Your task to perform on an android device: search for starred emails in the gmail app Image 0: 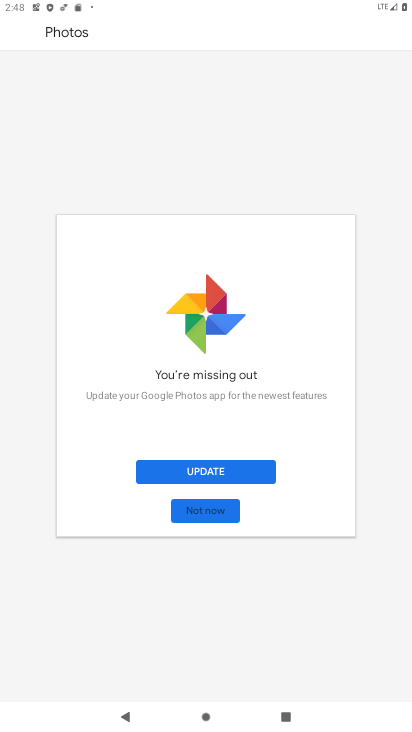
Step 0: press home button
Your task to perform on an android device: search for starred emails in the gmail app Image 1: 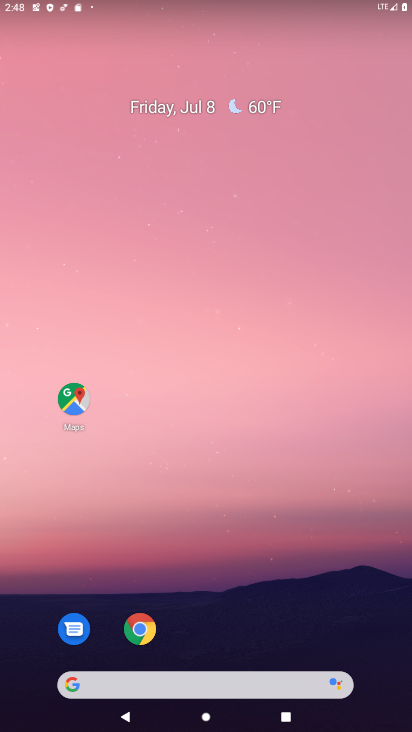
Step 1: drag from (217, 649) to (227, 217)
Your task to perform on an android device: search for starred emails in the gmail app Image 2: 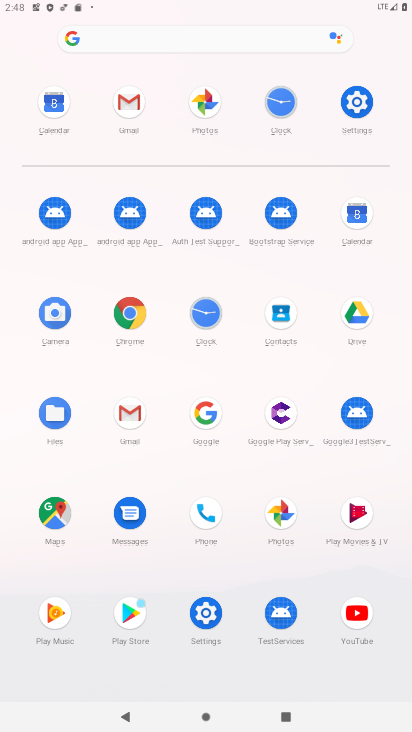
Step 2: click (114, 120)
Your task to perform on an android device: search for starred emails in the gmail app Image 3: 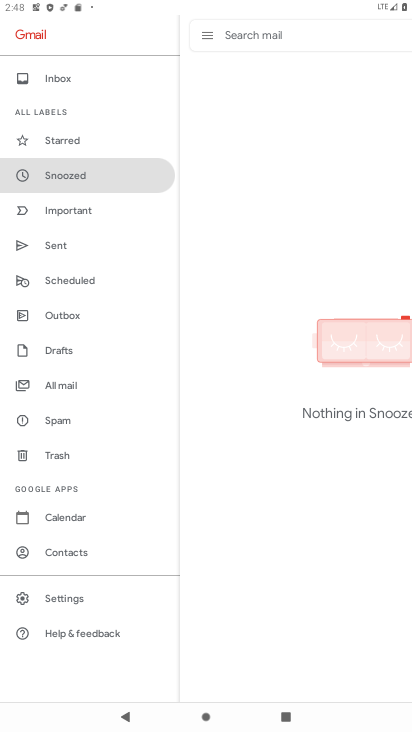
Step 3: click (78, 142)
Your task to perform on an android device: search for starred emails in the gmail app Image 4: 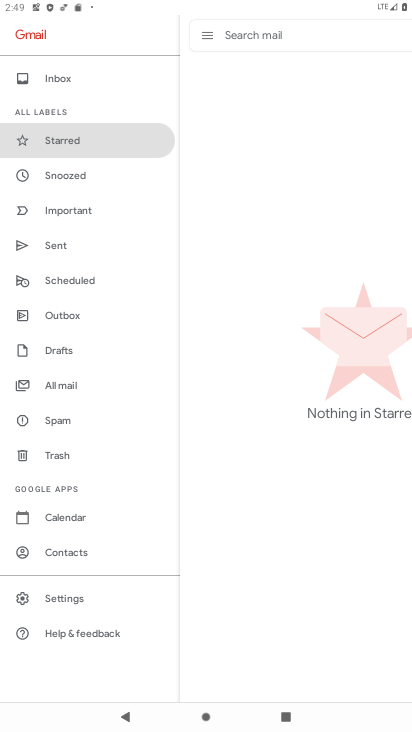
Step 4: task complete